Your task to perform on an android device: Open the phone app and click the voicemail tab. Image 0: 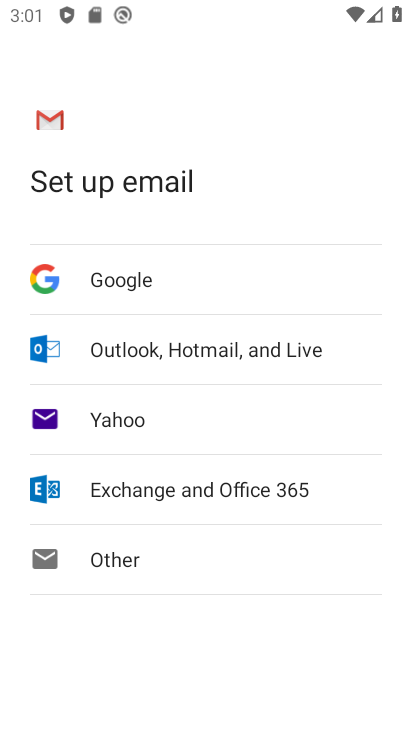
Step 0: press home button
Your task to perform on an android device: Open the phone app and click the voicemail tab. Image 1: 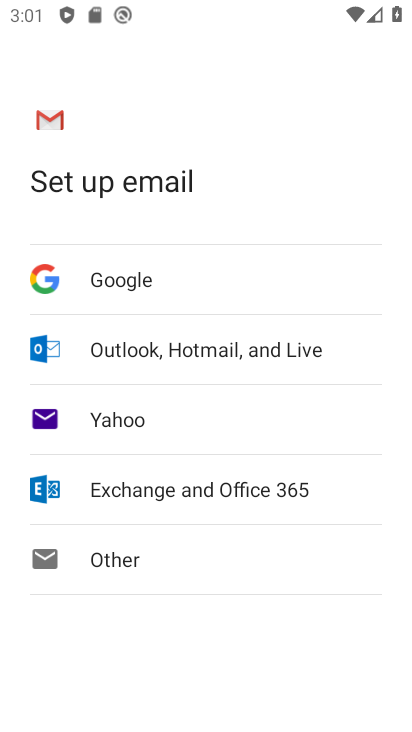
Step 1: press home button
Your task to perform on an android device: Open the phone app and click the voicemail tab. Image 2: 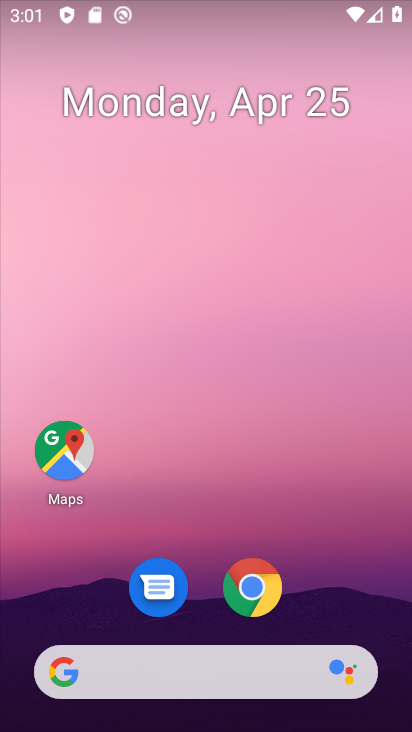
Step 2: drag from (315, 598) to (329, 164)
Your task to perform on an android device: Open the phone app and click the voicemail tab. Image 3: 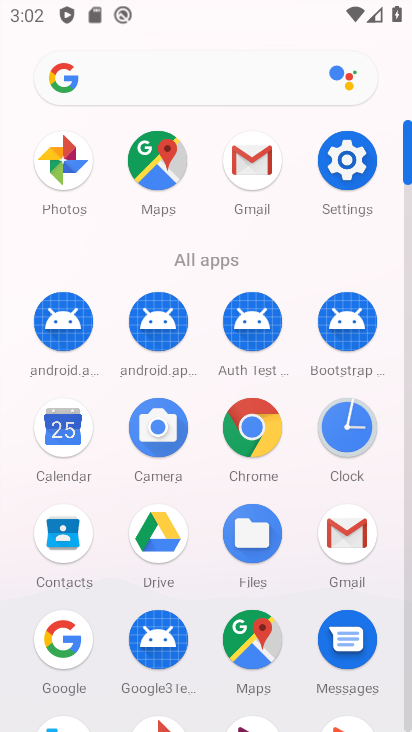
Step 3: click (407, 705)
Your task to perform on an android device: Open the phone app and click the voicemail tab. Image 4: 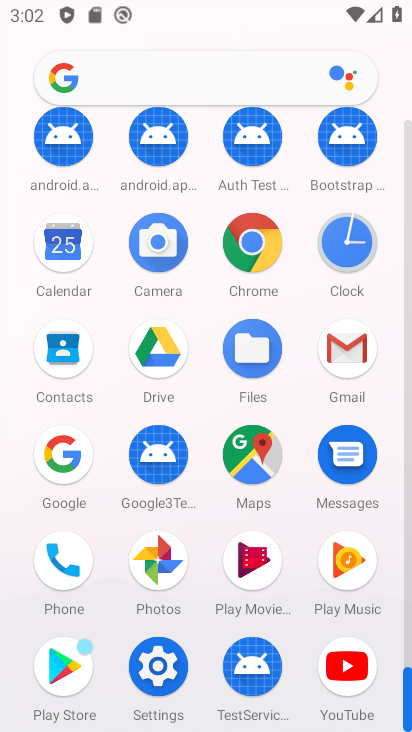
Step 4: click (69, 564)
Your task to perform on an android device: Open the phone app and click the voicemail tab. Image 5: 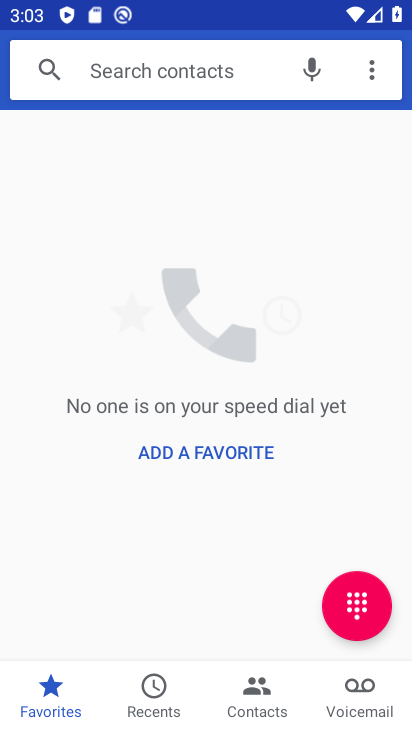
Step 5: click (360, 700)
Your task to perform on an android device: Open the phone app and click the voicemail tab. Image 6: 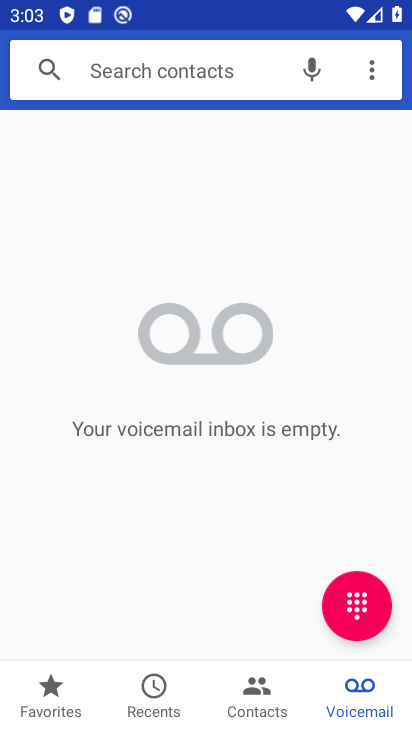
Step 6: task complete